Your task to perform on an android device: change notifications settings Image 0: 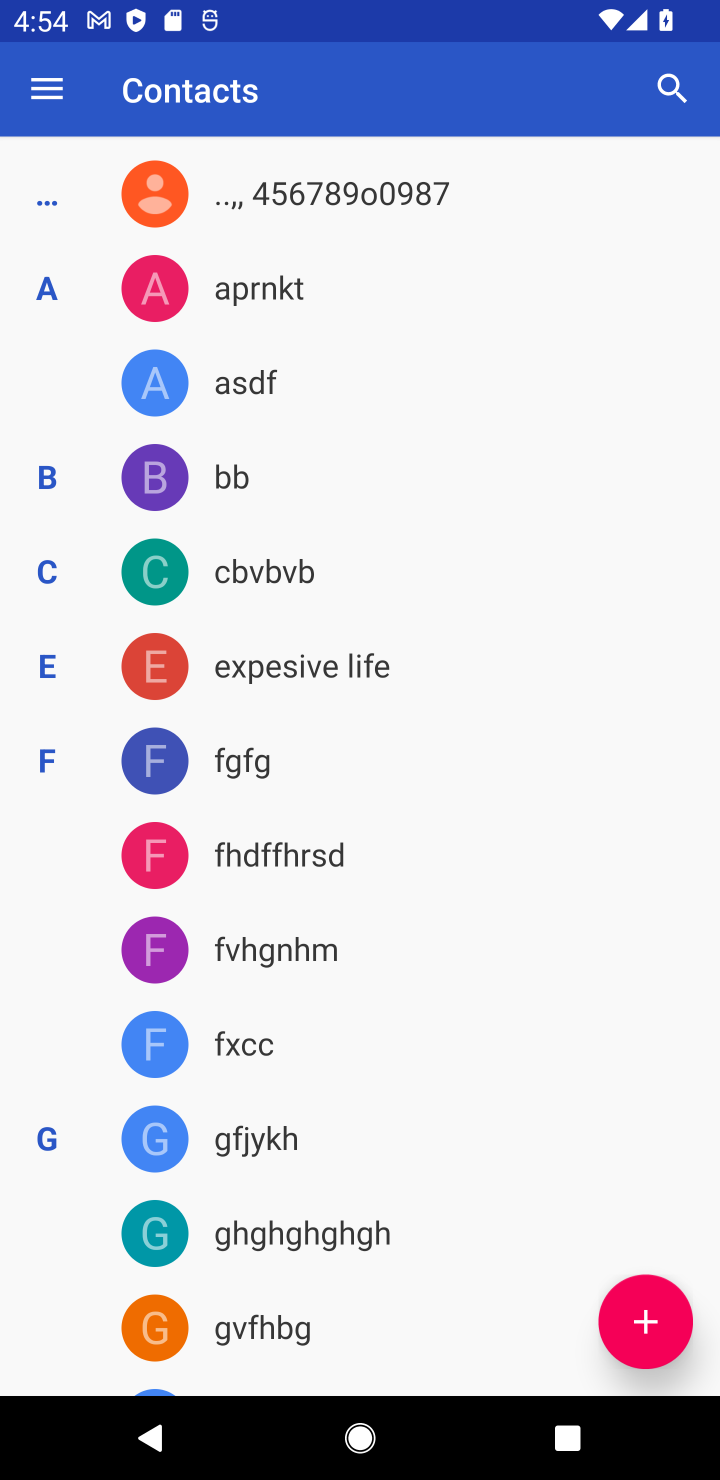
Step 0: press home button
Your task to perform on an android device: change notifications settings Image 1: 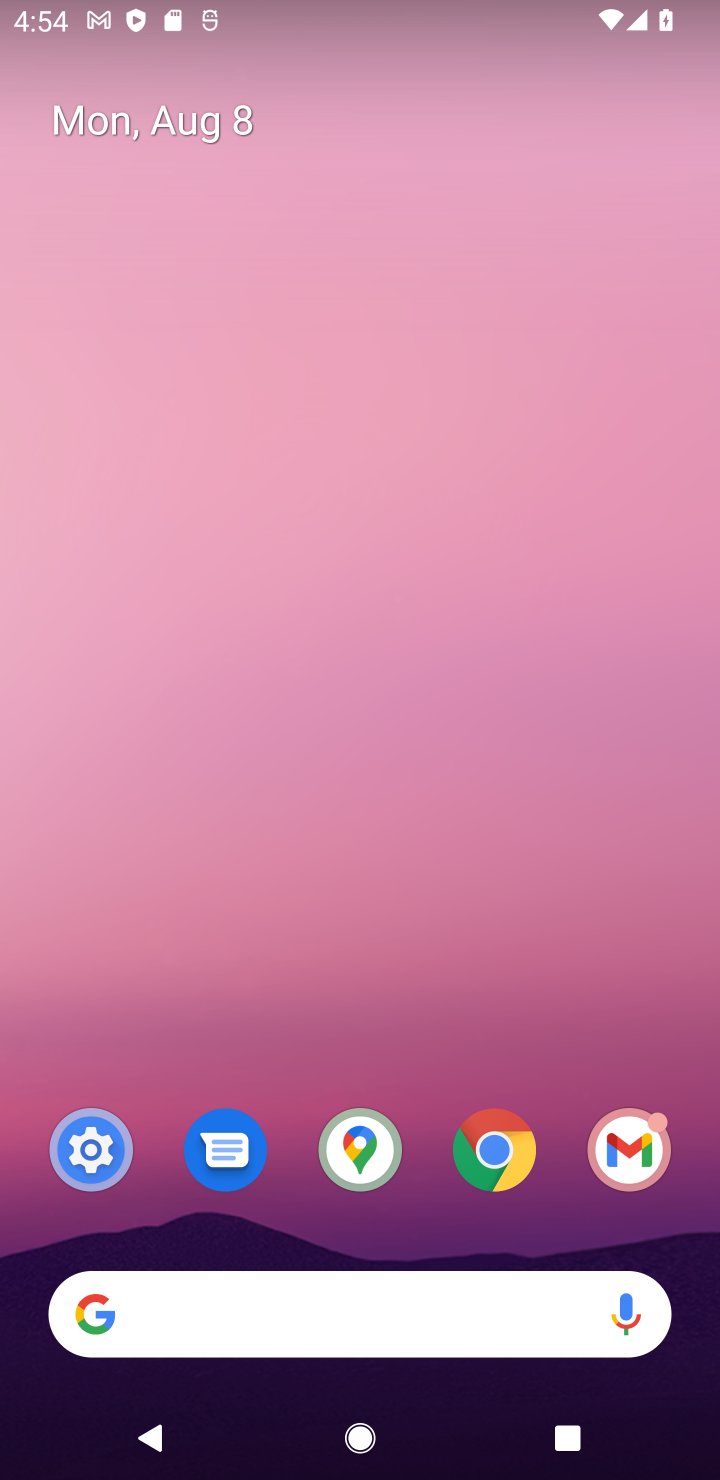
Step 1: click (131, 1175)
Your task to perform on an android device: change notifications settings Image 2: 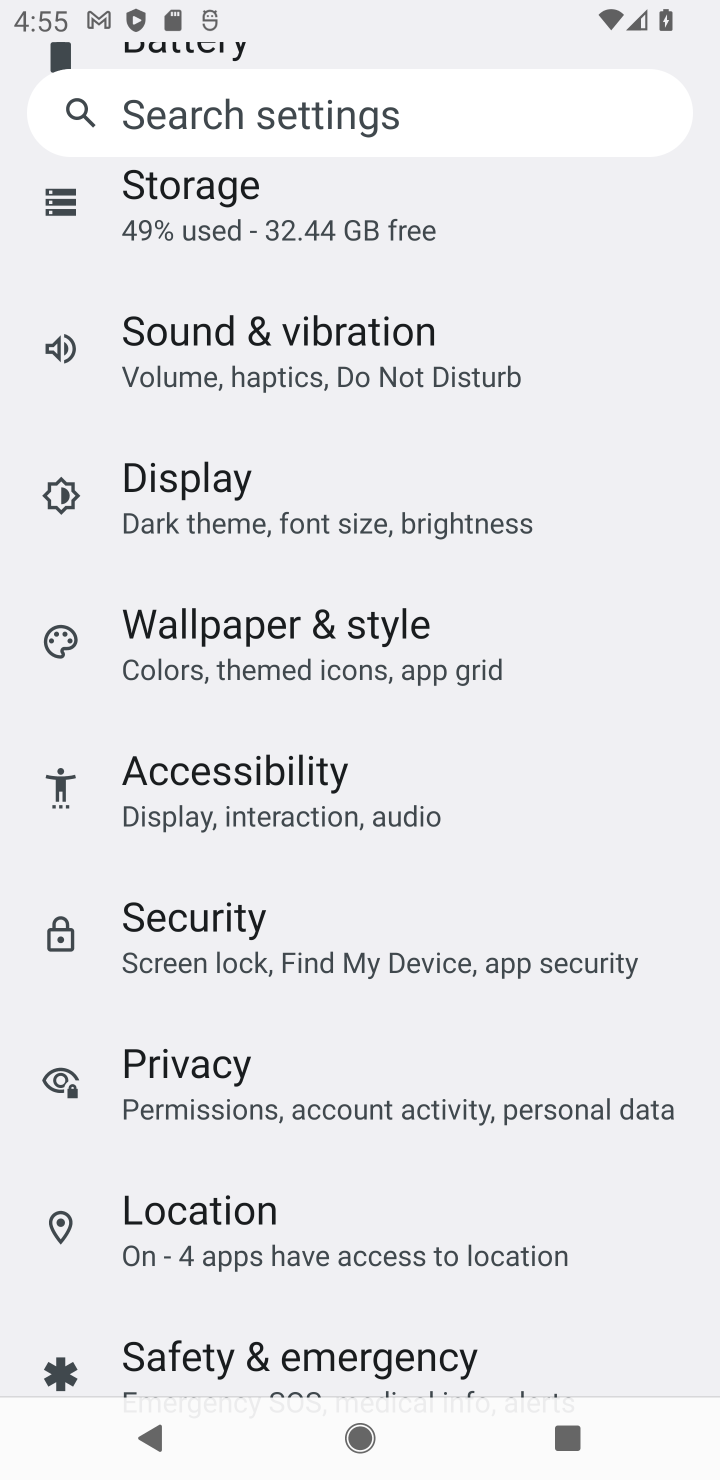
Step 2: task complete